Your task to perform on an android device: delete a single message in the gmail app Image 0: 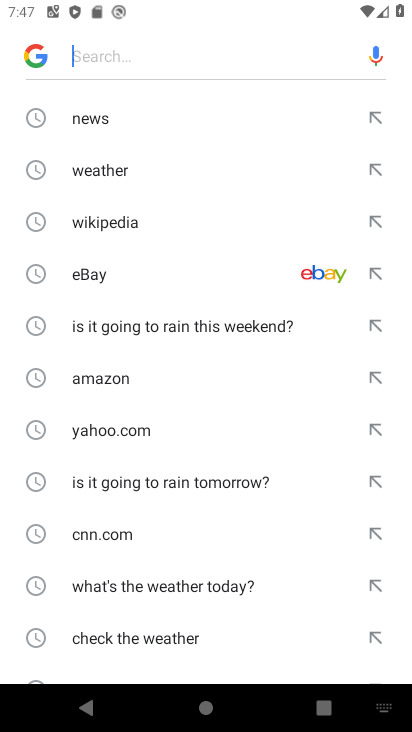
Step 0: press home button
Your task to perform on an android device: delete a single message in the gmail app Image 1: 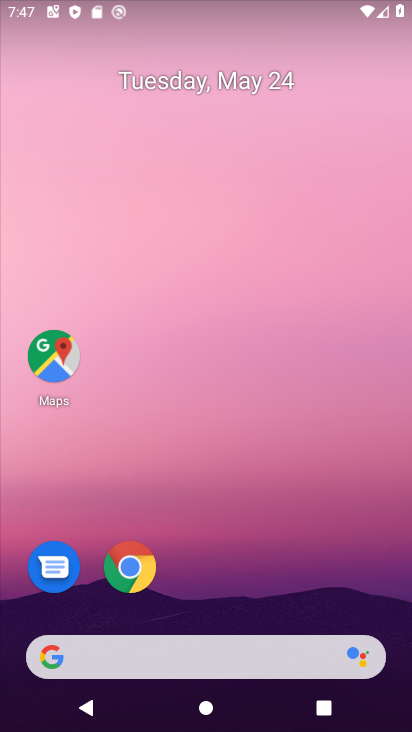
Step 1: drag from (219, 608) to (248, 47)
Your task to perform on an android device: delete a single message in the gmail app Image 2: 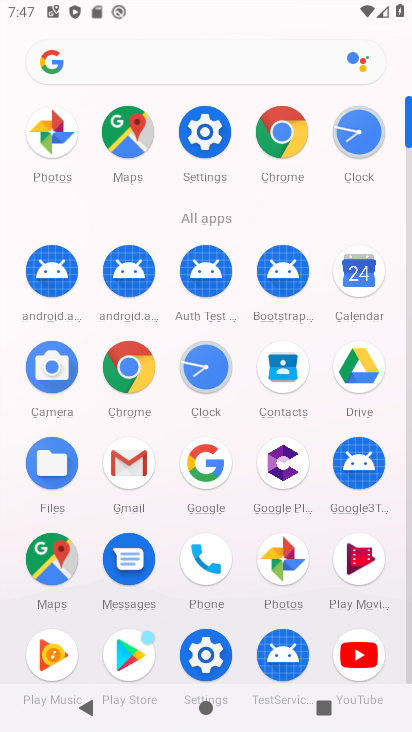
Step 2: click (129, 468)
Your task to perform on an android device: delete a single message in the gmail app Image 3: 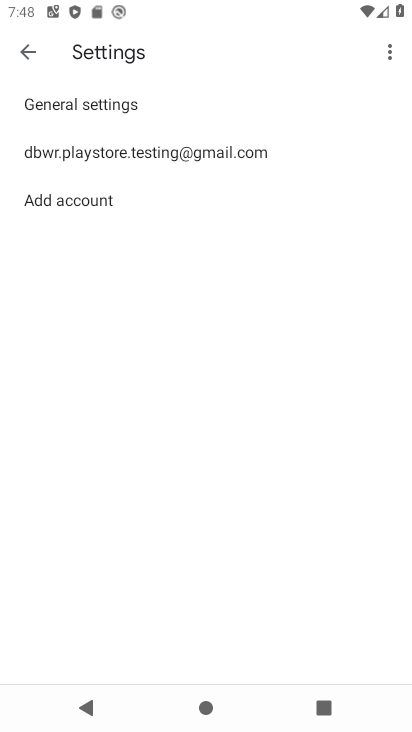
Step 3: click (28, 62)
Your task to perform on an android device: delete a single message in the gmail app Image 4: 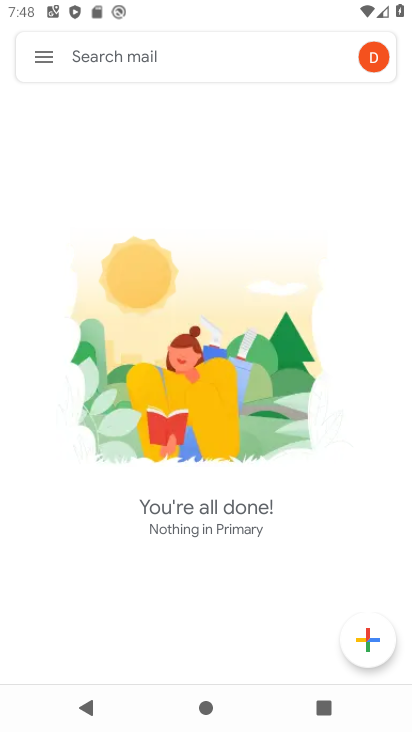
Step 4: click (44, 47)
Your task to perform on an android device: delete a single message in the gmail app Image 5: 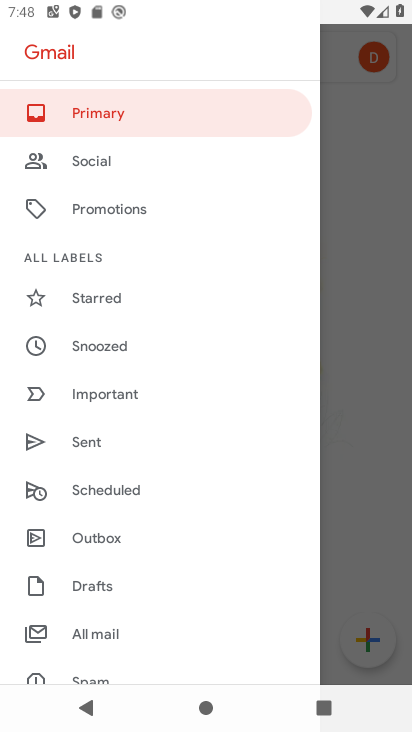
Step 5: click (87, 638)
Your task to perform on an android device: delete a single message in the gmail app Image 6: 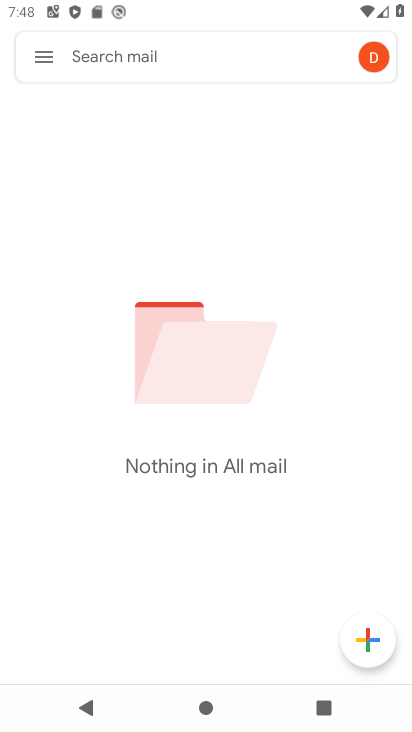
Step 6: task complete